Your task to perform on an android device: Open internet settings Image 0: 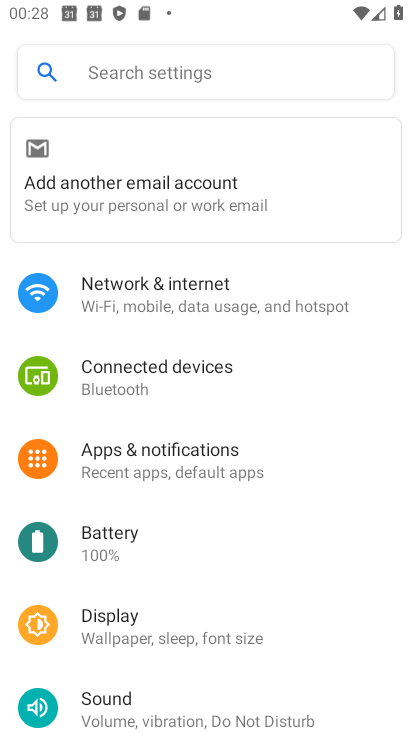
Step 0: click (176, 295)
Your task to perform on an android device: Open internet settings Image 1: 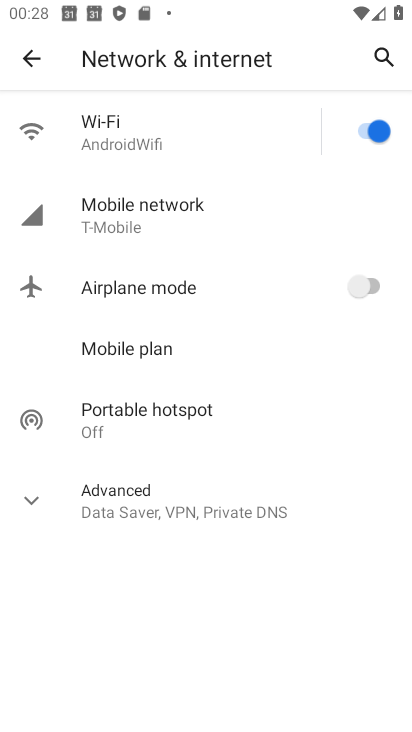
Step 1: task complete